Your task to perform on an android device: turn on the 12-hour format for clock Image 0: 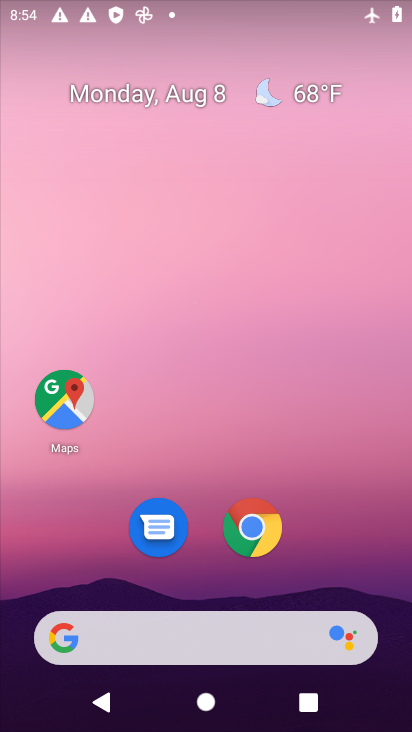
Step 0: drag from (386, 713) to (300, 166)
Your task to perform on an android device: turn on the 12-hour format for clock Image 1: 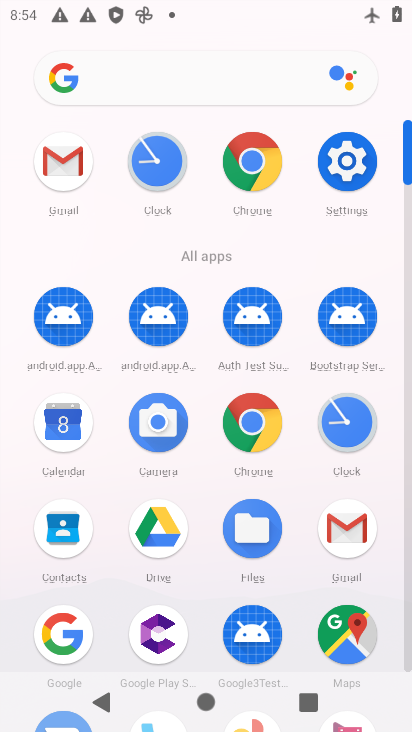
Step 1: click (338, 419)
Your task to perform on an android device: turn on the 12-hour format for clock Image 2: 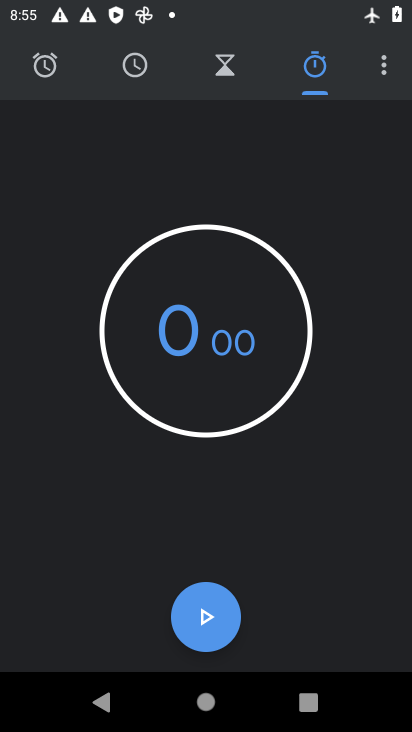
Step 2: click (381, 68)
Your task to perform on an android device: turn on the 12-hour format for clock Image 3: 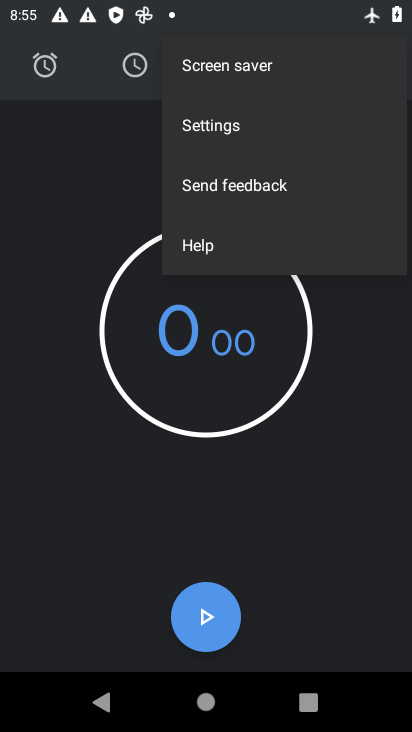
Step 3: click (196, 119)
Your task to perform on an android device: turn on the 12-hour format for clock Image 4: 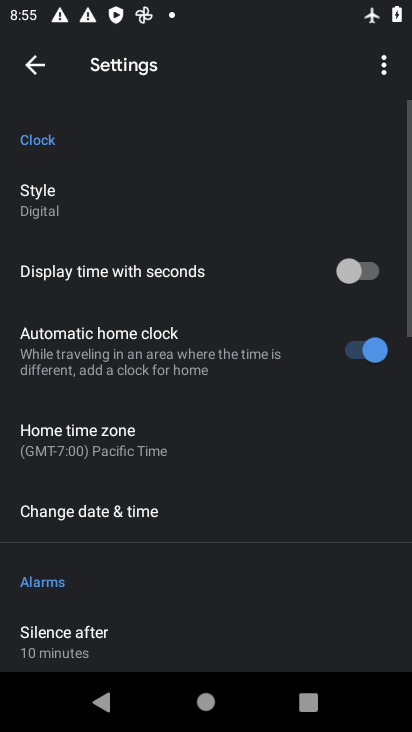
Step 4: click (95, 511)
Your task to perform on an android device: turn on the 12-hour format for clock Image 5: 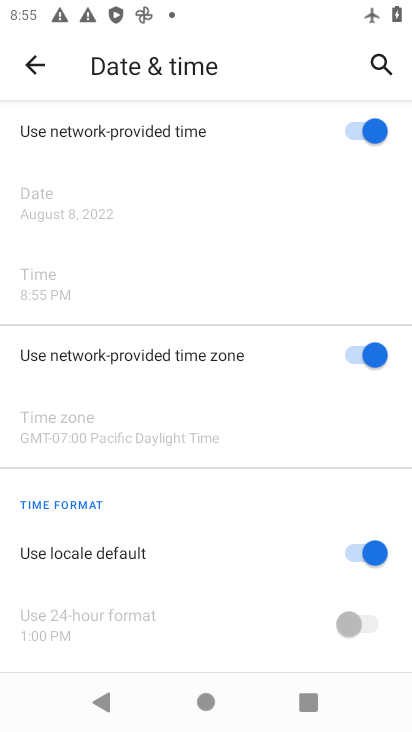
Step 5: task complete